Your task to perform on an android device: When is my next appointment? Image 0: 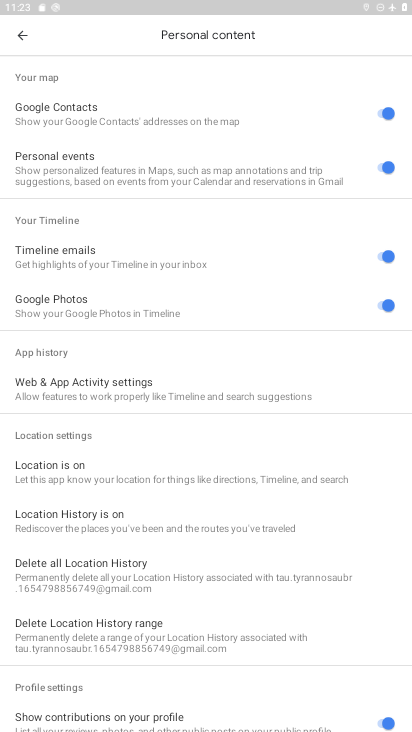
Step 0: press home button
Your task to perform on an android device: When is my next appointment? Image 1: 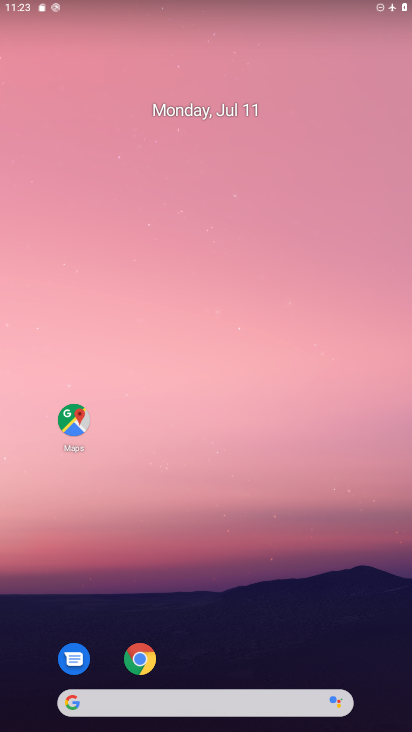
Step 1: drag from (345, 620) to (251, 135)
Your task to perform on an android device: When is my next appointment? Image 2: 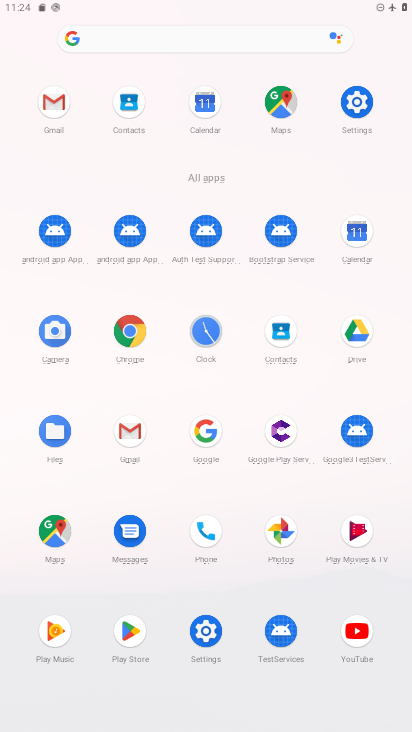
Step 2: click (359, 239)
Your task to perform on an android device: When is my next appointment? Image 3: 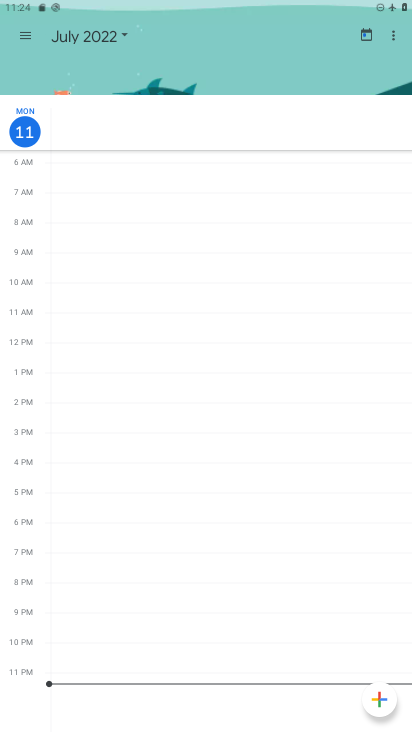
Step 3: task complete